Your task to perform on an android device: What's the weather today? Image 0: 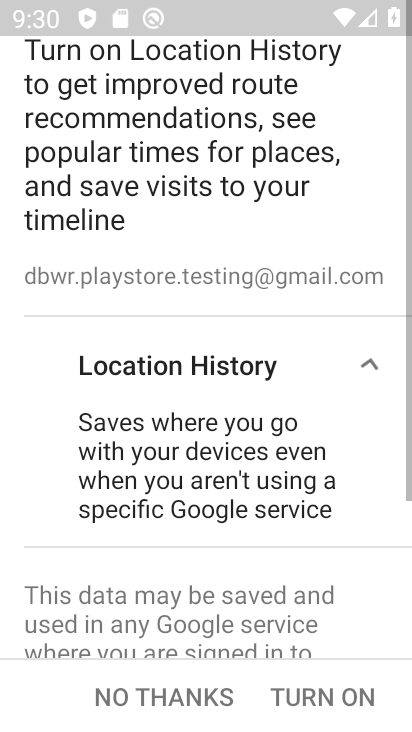
Step 0: press home button
Your task to perform on an android device: What's the weather today? Image 1: 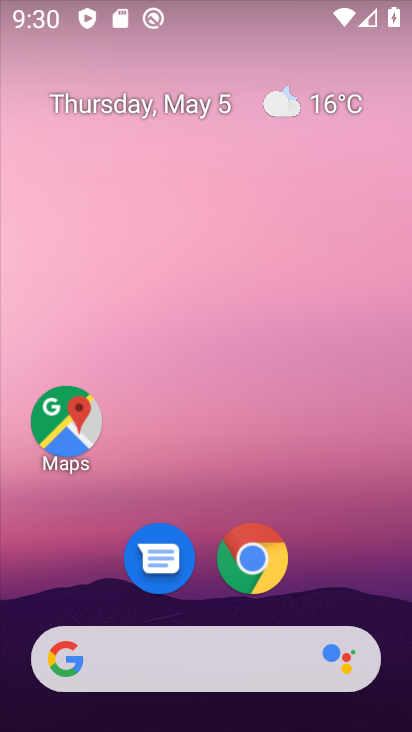
Step 1: click (271, 574)
Your task to perform on an android device: What's the weather today? Image 2: 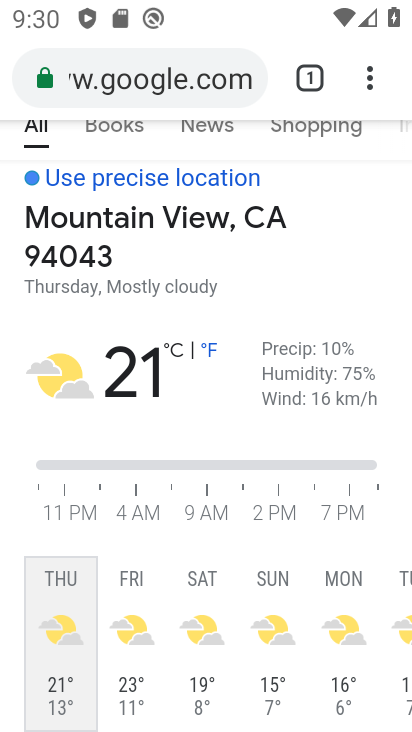
Step 2: task complete